Your task to perform on an android device: all mails in gmail Image 0: 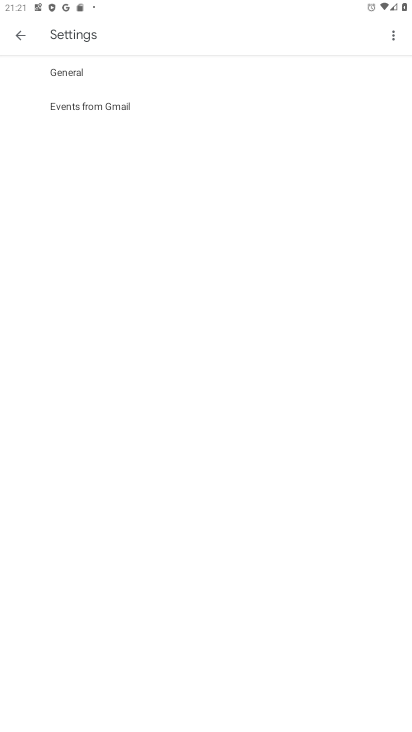
Step 0: press home button
Your task to perform on an android device: all mails in gmail Image 1: 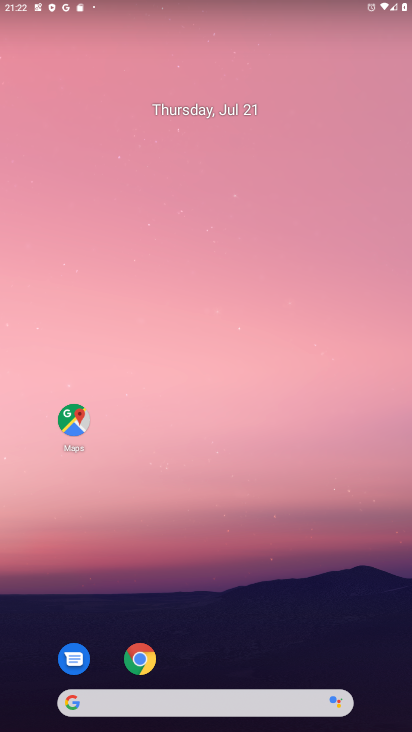
Step 1: drag from (198, 624) to (208, 73)
Your task to perform on an android device: all mails in gmail Image 2: 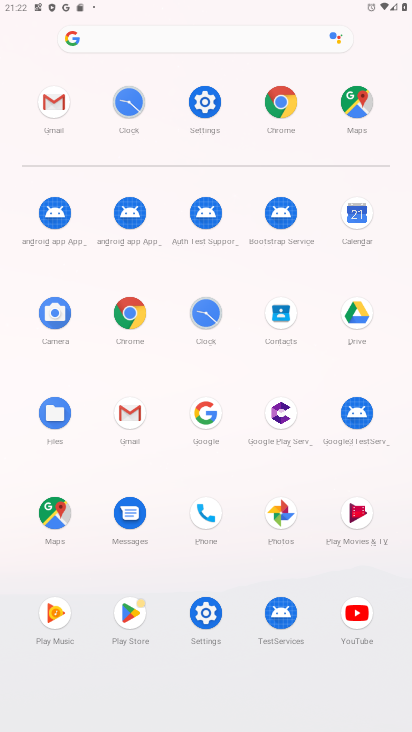
Step 2: click (146, 402)
Your task to perform on an android device: all mails in gmail Image 3: 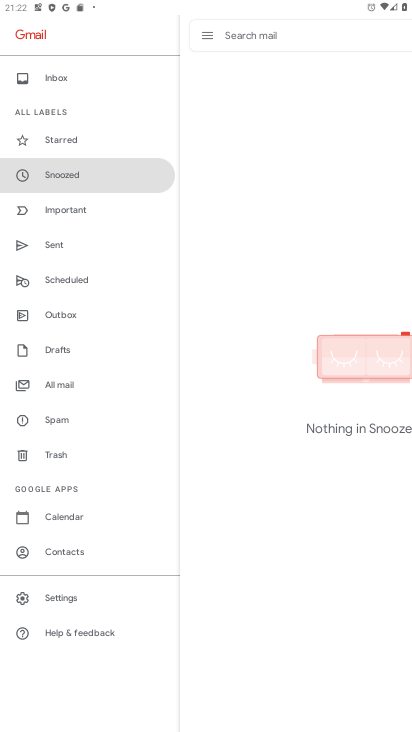
Step 3: click (51, 376)
Your task to perform on an android device: all mails in gmail Image 4: 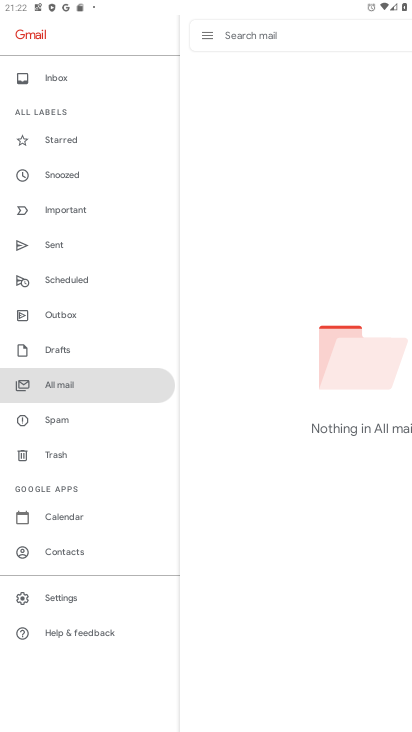
Step 4: task complete